Your task to perform on an android device: What's the weather today? Image 0: 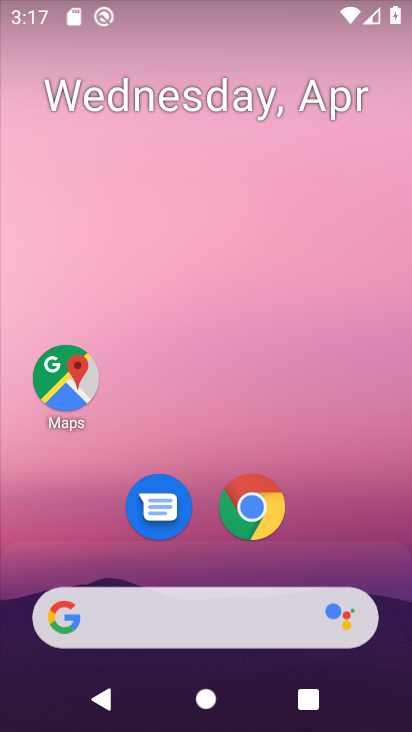
Step 0: click (186, 616)
Your task to perform on an android device: What's the weather today? Image 1: 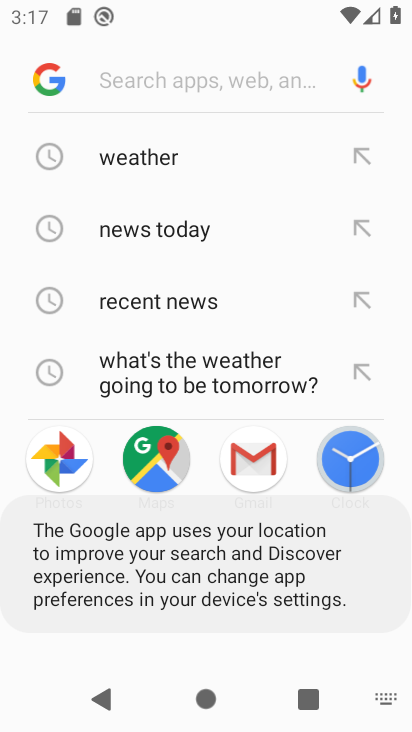
Step 1: click (152, 152)
Your task to perform on an android device: What's the weather today? Image 2: 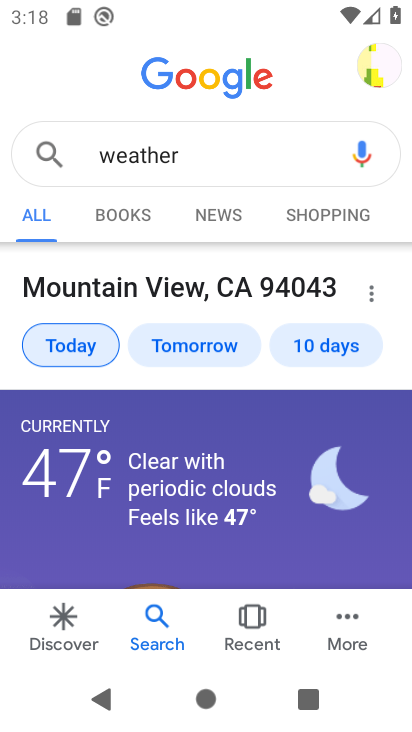
Step 2: task complete